Your task to perform on an android device: allow notifications from all sites in the chrome app Image 0: 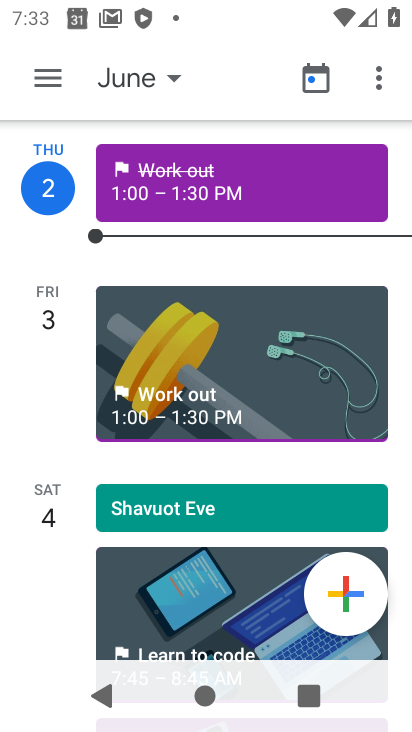
Step 0: press home button
Your task to perform on an android device: allow notifications from all sites in the chrome app Image 1: 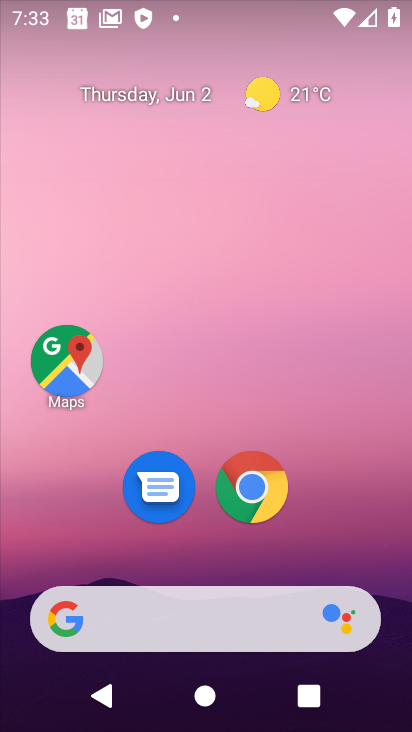
Step 1: click (239, 497)
Your task to perform on an android device: allow notifications from all sites in the chrome app Image 2: 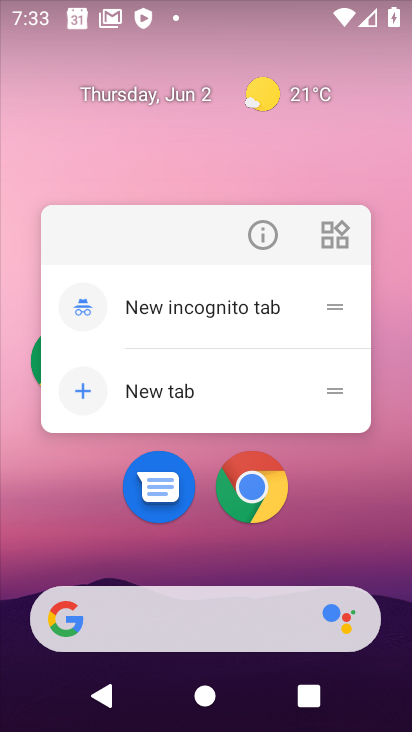
Step 2: click (259, 235)
Your task to perform on an android device: allow notifications from all sites in the chrome app Image 3: 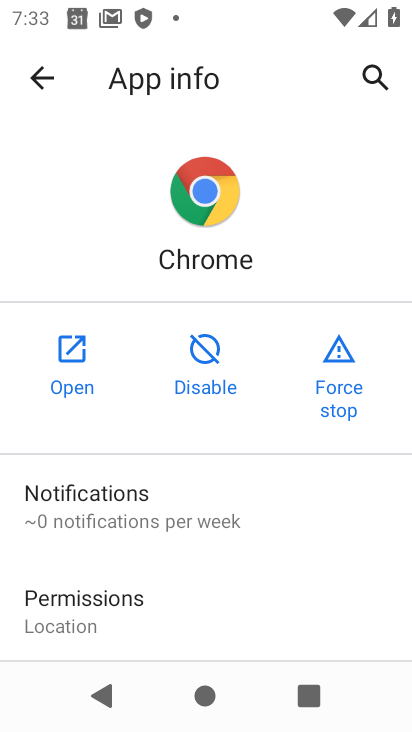
Step 3: click (67, 375)
Your task to perform on an android device: allow notifications from all sites in the chrome app Image 4: 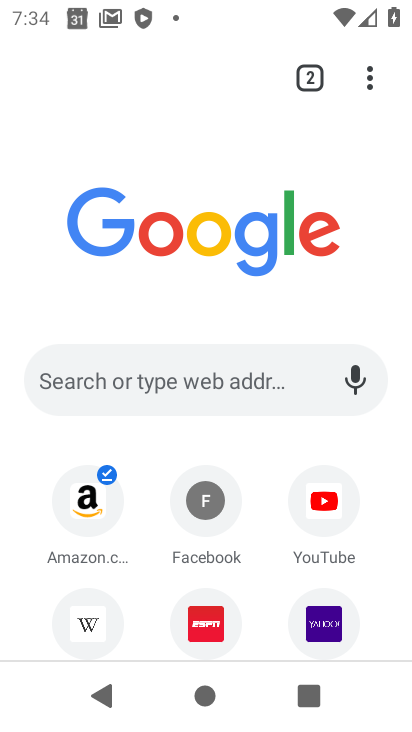
Step 4: click (368, 82)
Your task to perform on an android device: allow notifications from all sites in the chrome app Image 5: 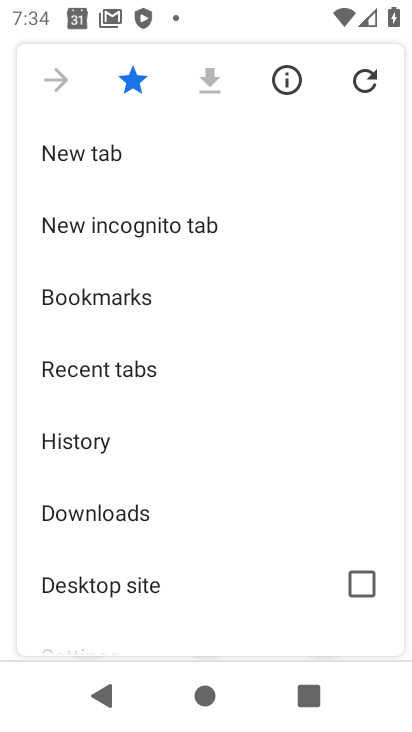
Step 5: drag from (184, 560) to (241, 222)
Your task to perform on an android device: allow notifications from all sites in the chrome app Image 6: 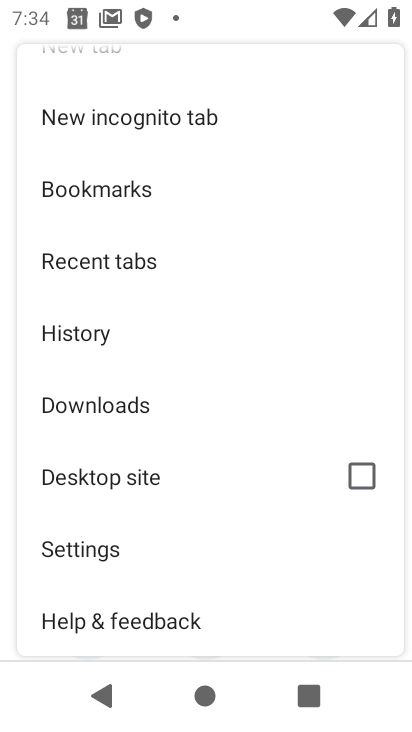
Step 6: click (123, 554)
Your task to perform on an android device: allow notifications from all sites in the chrome app Image 7: 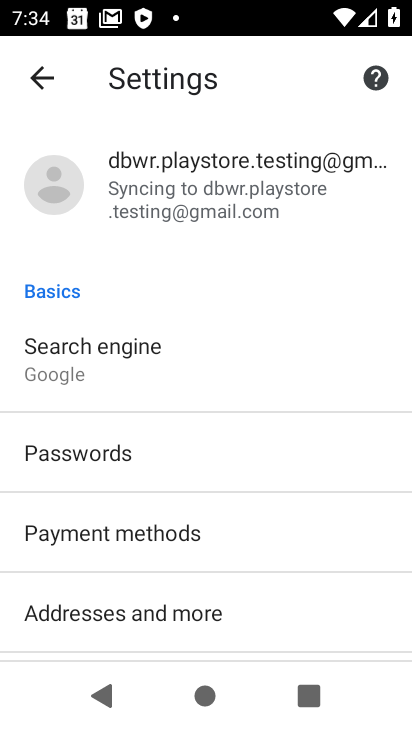
Step 7: drag from (243, 465) to (256, 253)
Your task to perform on an android device: allow notifications from all sites in the chrome app Image 8: 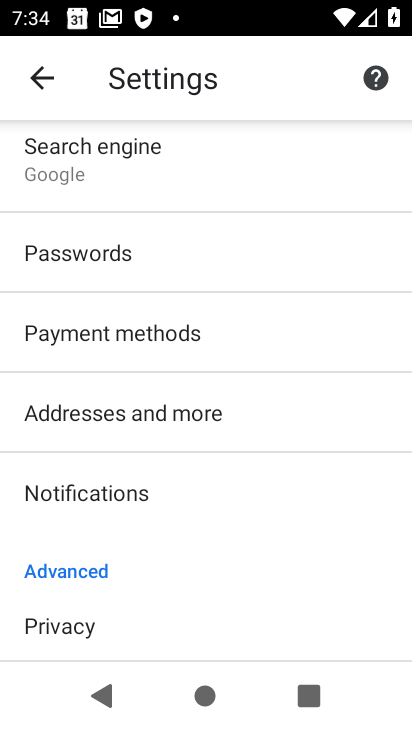
Step 8: click (143, 490)
Your task to perform on an android device: allow notifications from all sites in the chrome app Image 9: 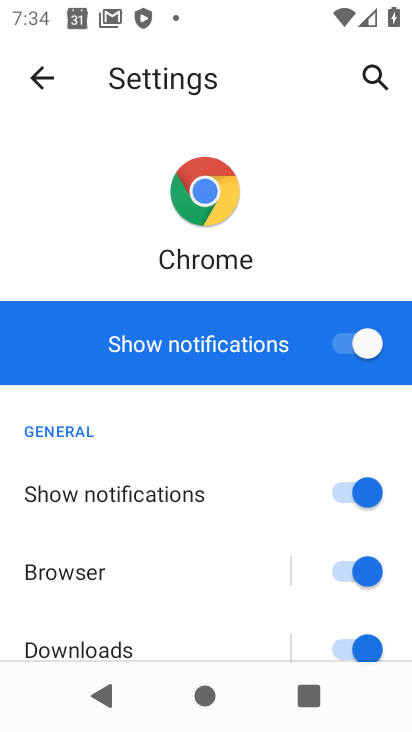
Step 9: task complete